Your task to perform on an android device: open app "Roku - Official Remote Control" (install if not already installed), go to login, and select forgot password Image 0: 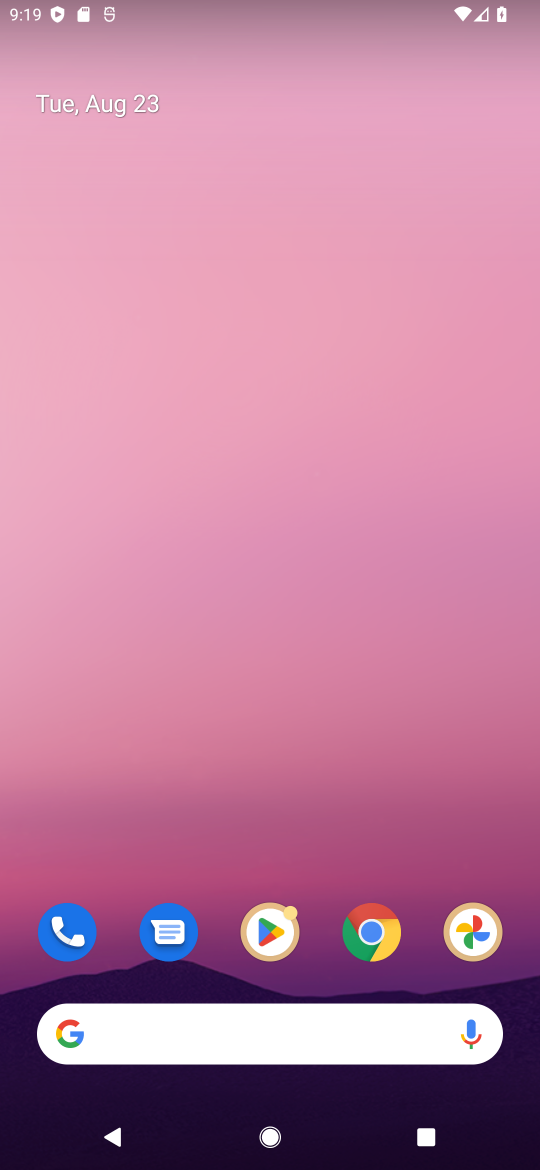
Step 0: click (265, 923)
Your task to perform on an android device: open app "Roku - Official Remote Control" (install if not already installed), go to login, and select forgot password Image 1: 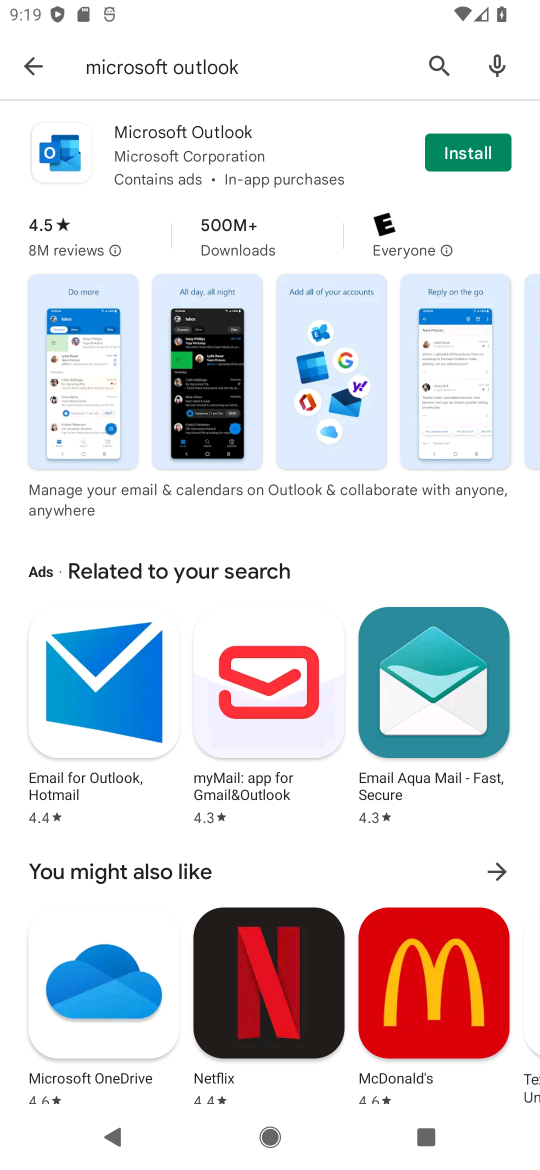
Step 1: click (446, 60)
Your task to perform on an android device: open app "Roku - Official Remote Control" (install if not already installed), go to login, and select forgot password Image 2: 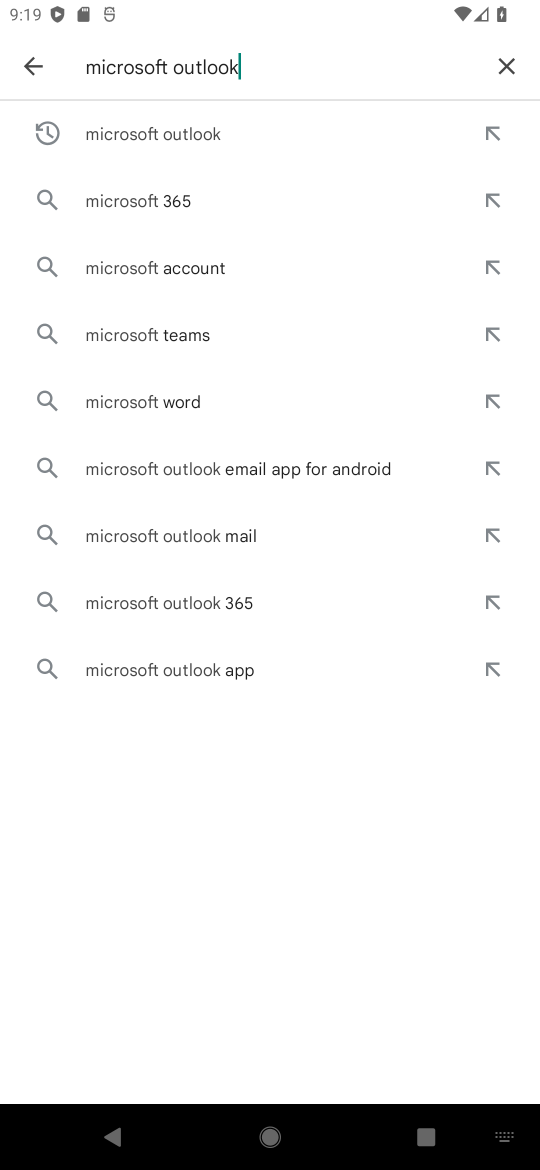
Step 2: click (510, 56)
Your task to perform on an android device: open app "Roku - Official Remote Control" (install if not already installed), go to login, and select forgot password Image 3: 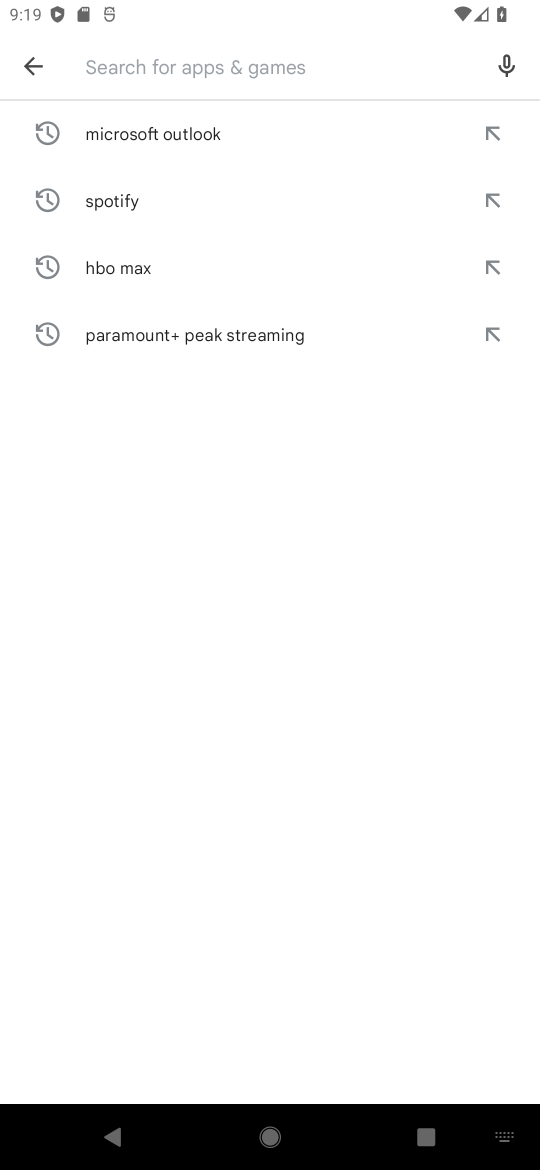
Step 3: click (215, 69)
Your task to perform on an android device: open app "Roku - Official Remote Control" (install if not already installed), go to login, and select forgot password Image 4: 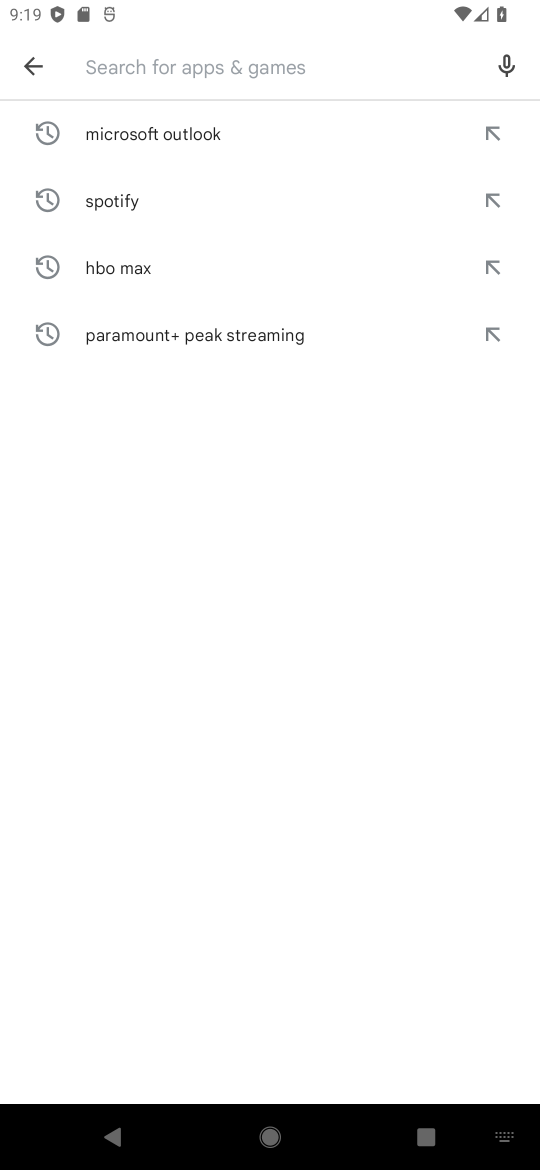
Step 4: type "roku"
Your task to perform on an android device: open app "Roku - Official Remote Control" (install if not already installed), go to login, and select forgot password Image 5: 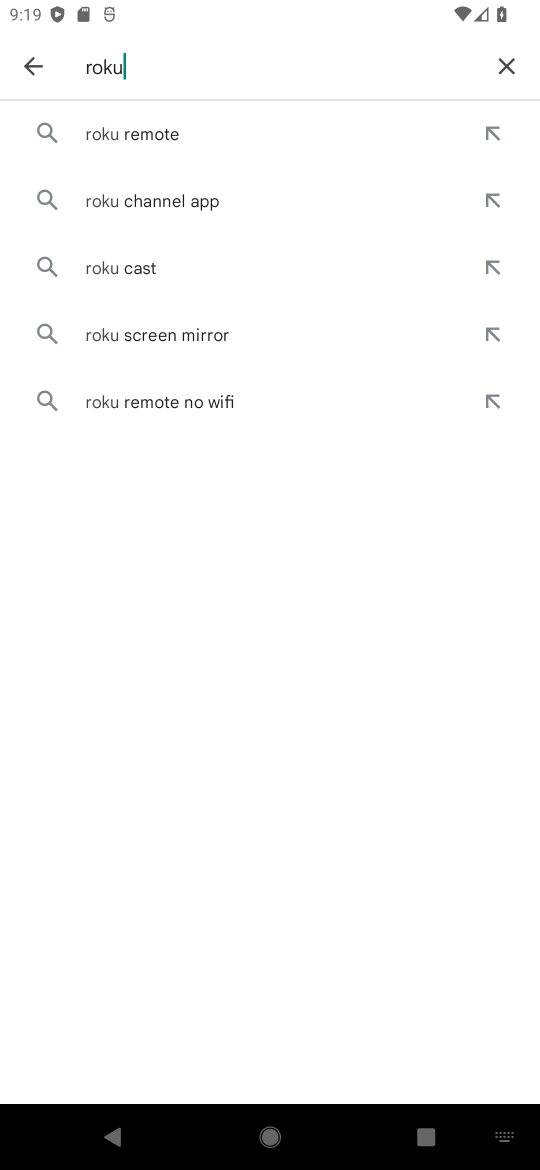
Step 5: click (174, 133)
Your task to perform on an android device: open app "Roku - Official Remote Control" (install if not already installed), go to login, and select forgot password Image 6: 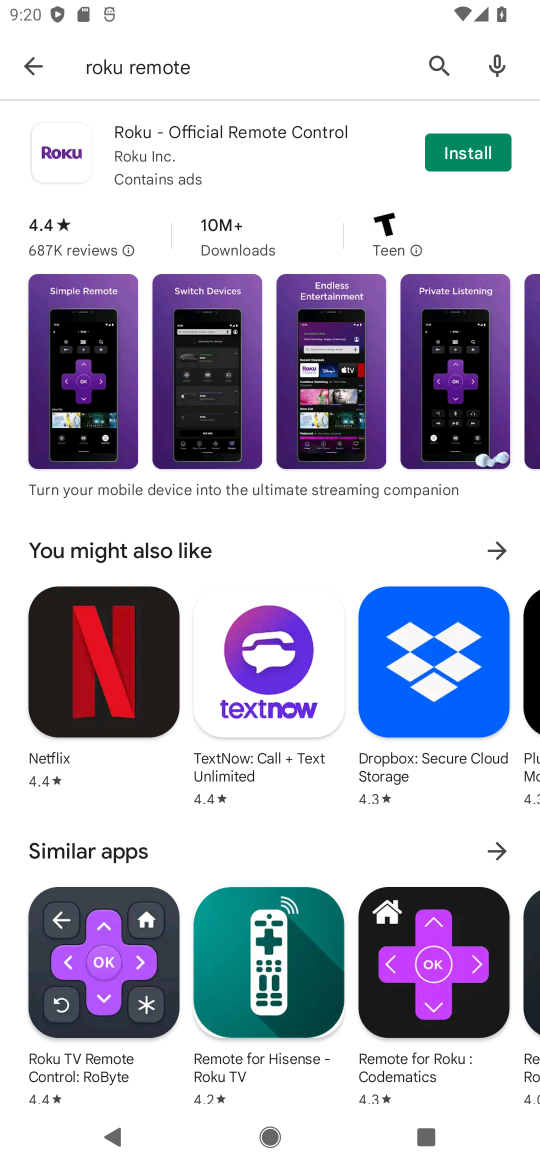
Step 6: click (472, 153)
Your task to perform on an android device: open app "Roku - Official Remote Control" (install if not already installed), go to login, and select forgot password Image 7: 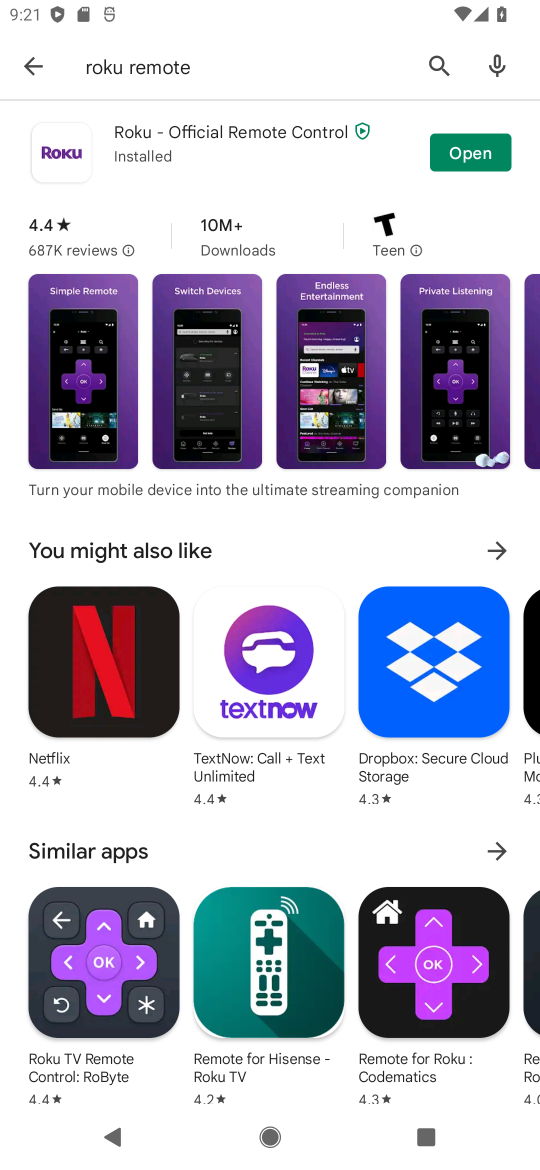
Step 7: click (478, 148)
Your task to perform on an android device: open app "Roku - Official Remote Control" (install if not already installed), go to login, and select forgot password Image 8: 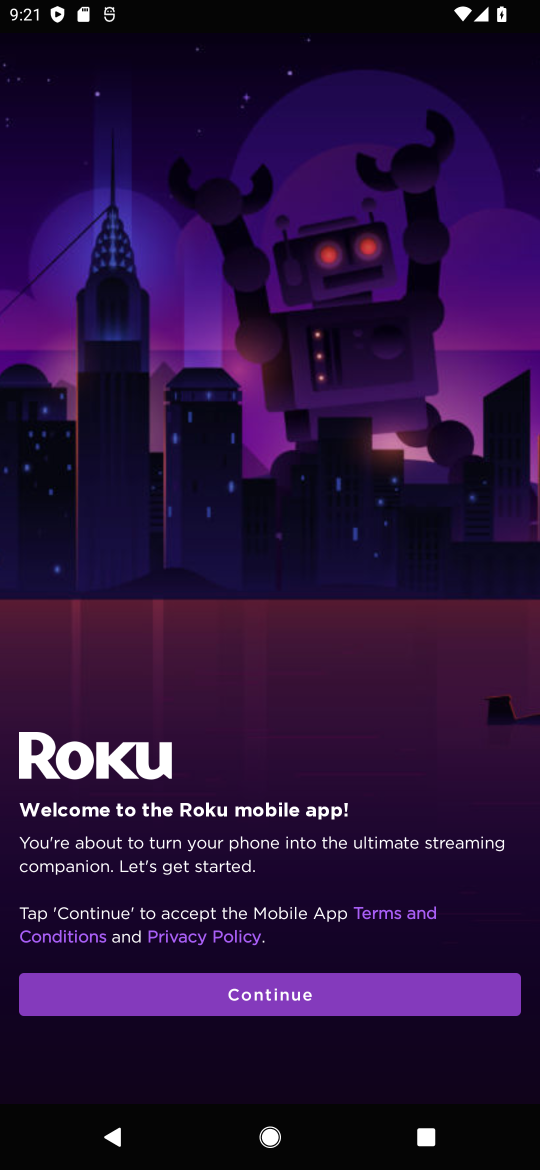
Step 8: click (291, 1009)
Your task to perform on an android device: open app "Roku - Official Remote Control" (install if not already installed), go to login, and select forgot password Image 9: 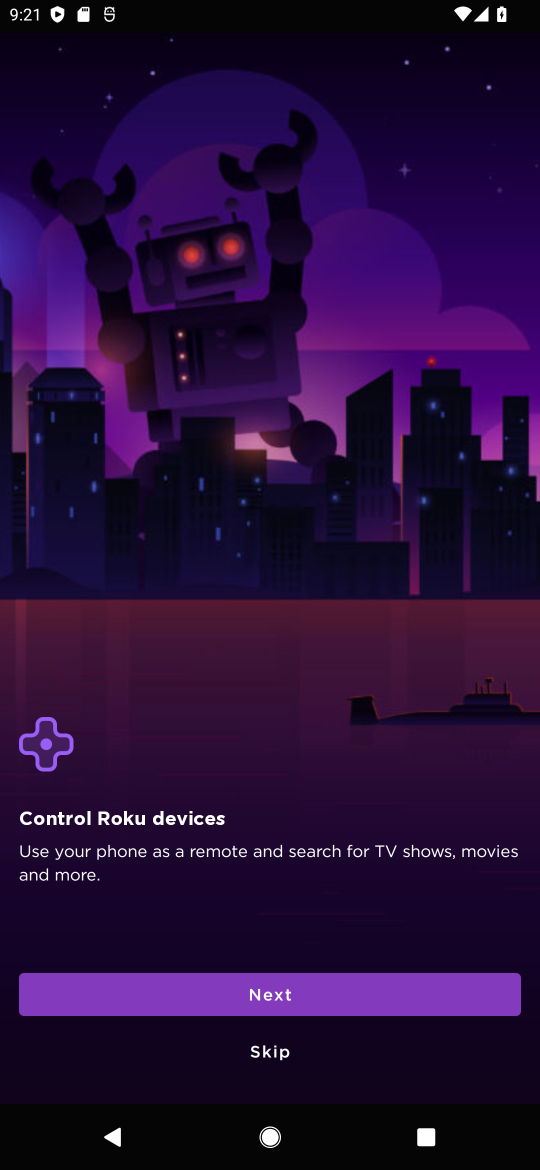
Step 9: click (266, 1057)
Your task to perform on an android device: open app "Roku - Official Remote Control" (install if not already installed), go to login, and select forgot password Image 10: 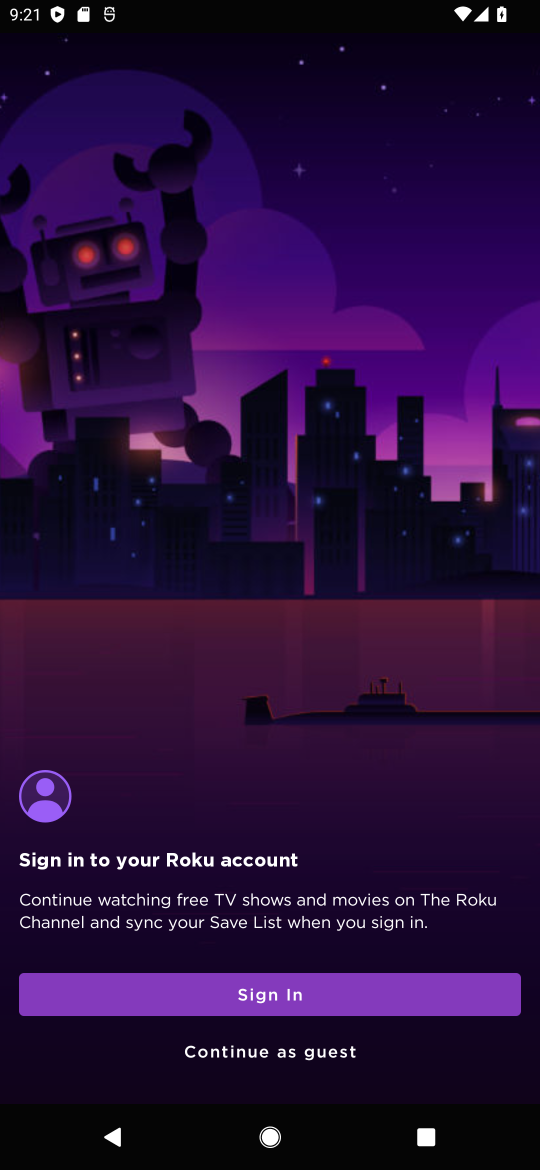
Step 10: click (291, 1000)
Your task to perform on an android device: open app "Roku - Official Remote Control" (install if not already installed), go to login, and select forgot password Image 11: 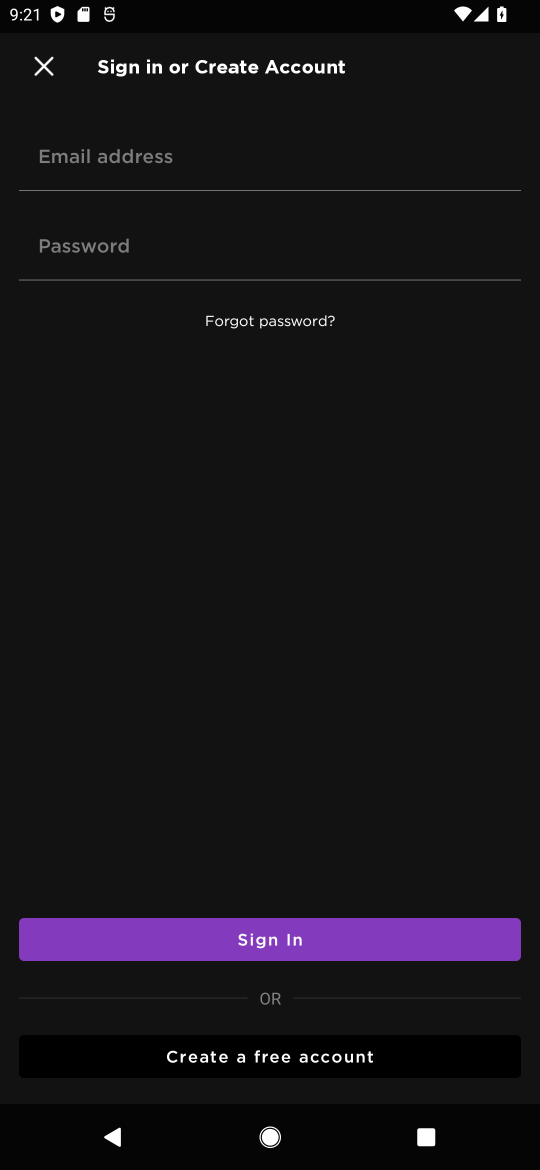
Step 11: task complete